Your task to perform on an android device: Go to accessibility settings Image 0: 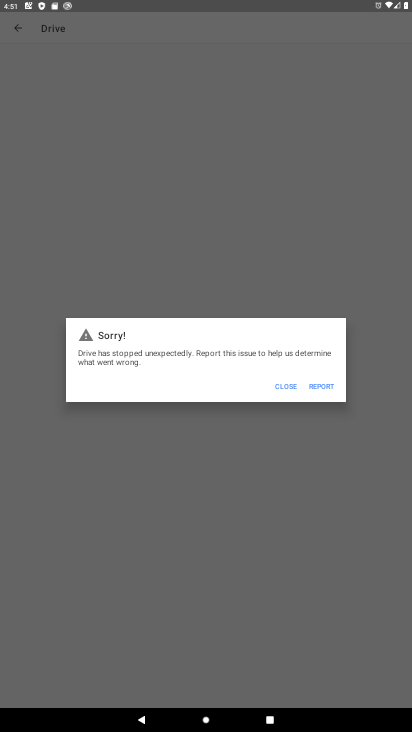
Step 0: press home button
Your task to perform on an android device: Go to accessibility settings Image 1: 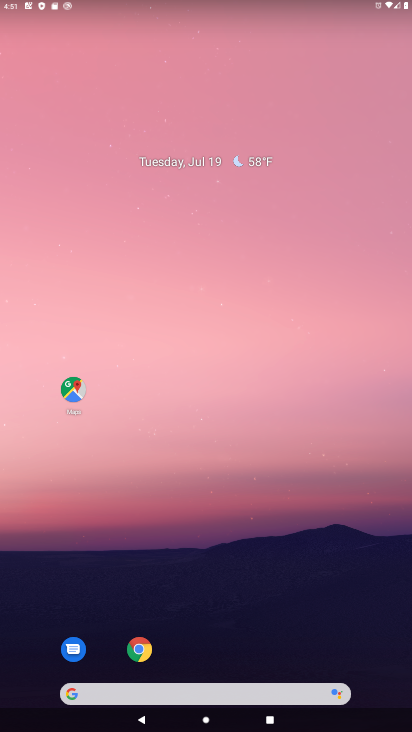
Step 1: drag from (206, 513) to (207, 214)
Your task to perform on an android device: Go to accessibility settings Image 2: 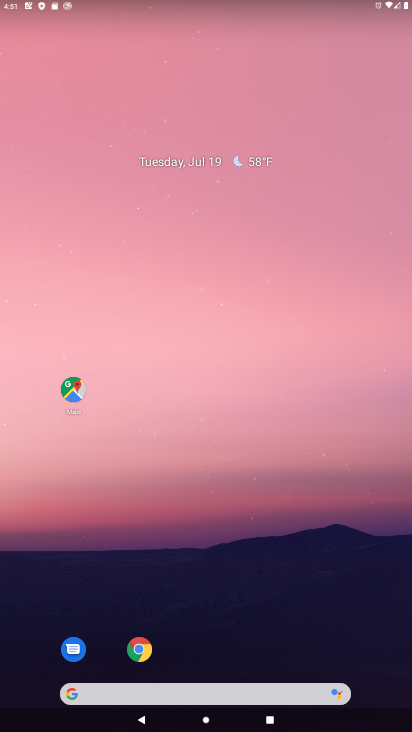
Step 2: drag from (194, 610) to (235, 61)
Your task to perform on an android device: Go to accessibility settings Image 3: 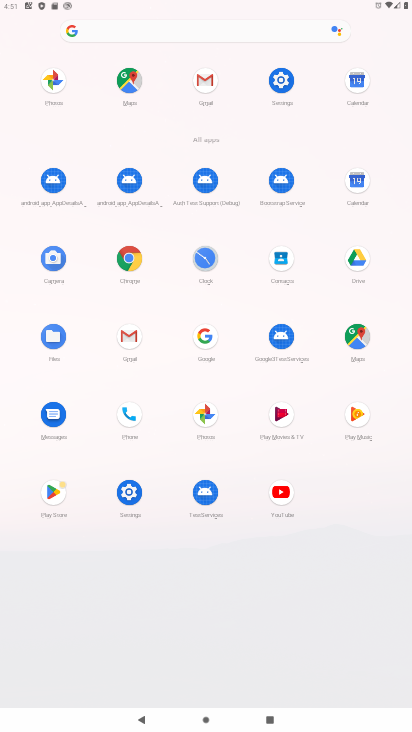
Step 3: click (280, 78)
Your task to perform on an android device: Go to accessibility settings Image 4: 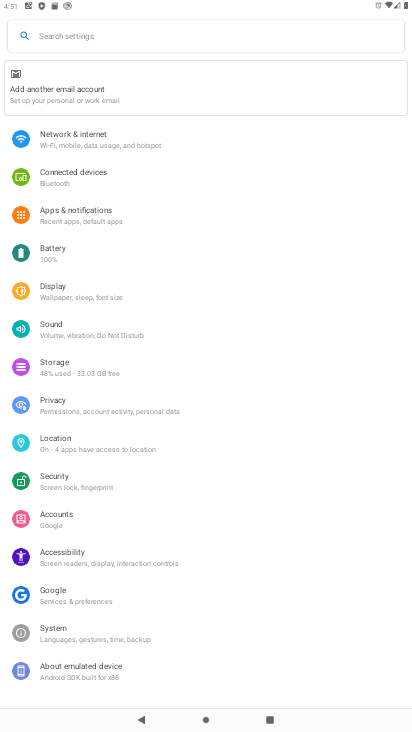
Step 4: click (55, 561)
Your task to perform on an android device: Go to accessibility settings Image 5: 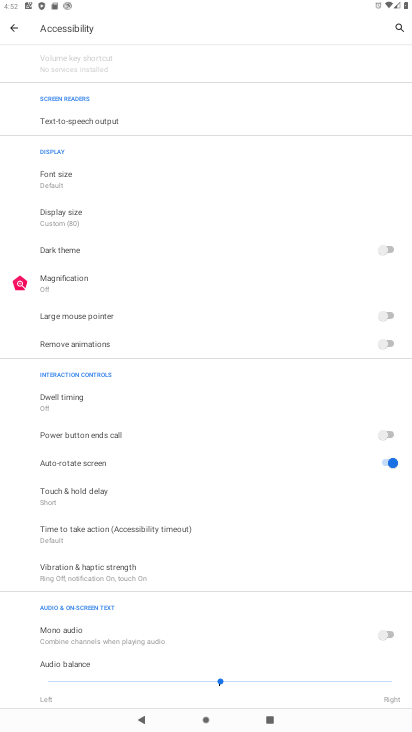
Step 5: task complete